Your task to perform on an android device: turn off improve location accuracy Image 0: 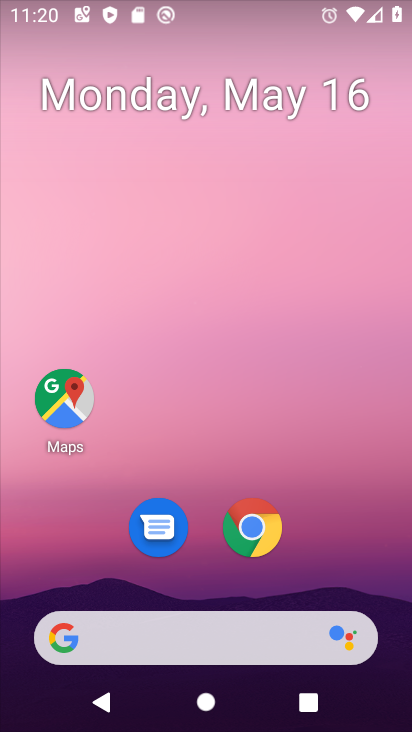
Step 0: drag from (364, 582) to (367, 6)
Your task to perform on an android device: turn off improve location accuracy Image 1: 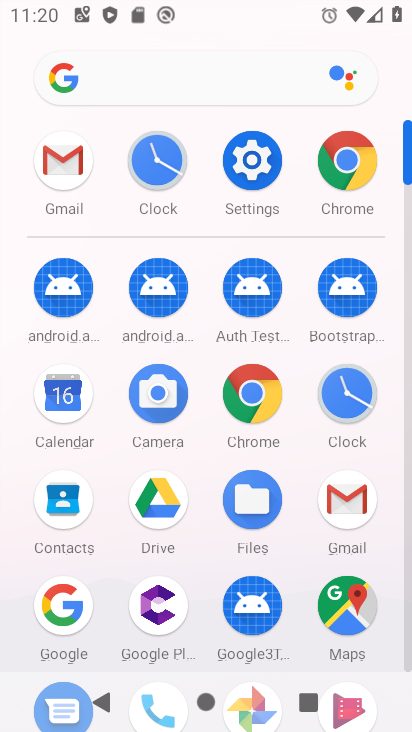
Step 1: click (253, 162)
Your task to perform on an android device: turn off improve location accuracy Image 2: 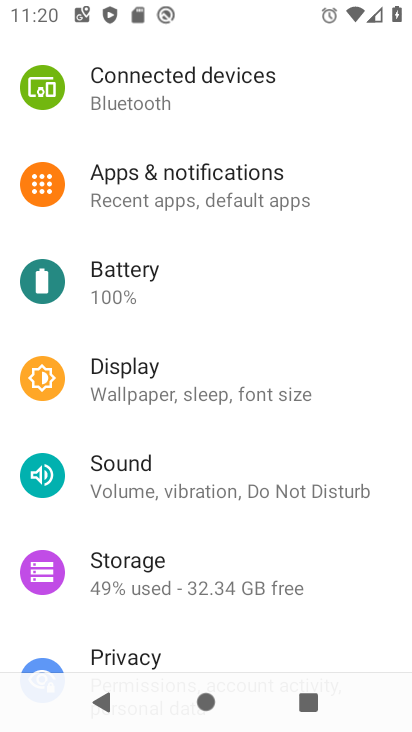
Step 2: drag from (275, 444) to (277, 128)
Your task to perform on an android device: turn off improve location accuracy Image 3: 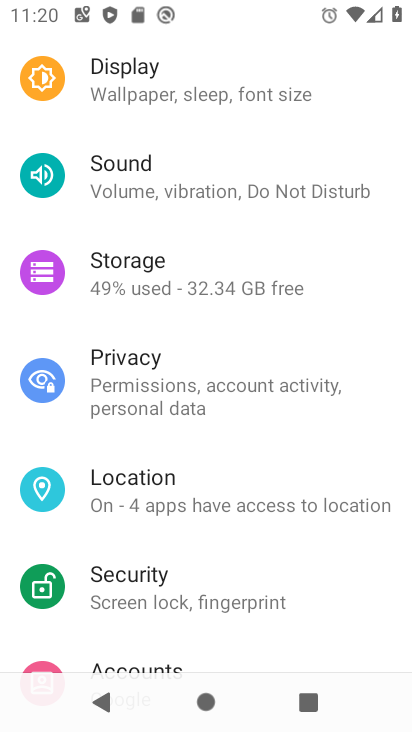
Step 3: click (142, 481)
Your task to perform on an android device: turn off improve location accuracy Image 4: 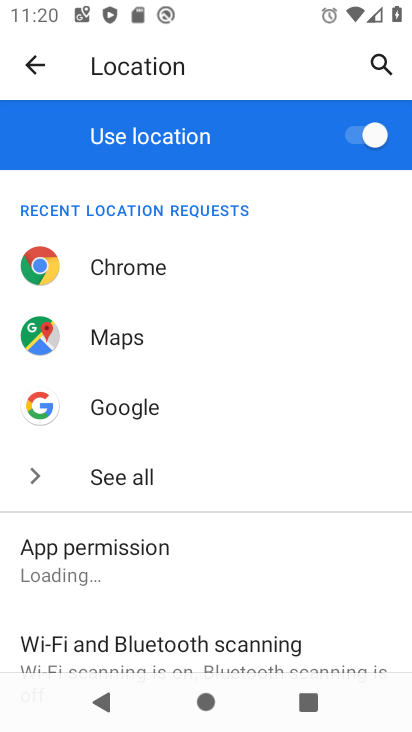
Step 4: drag from (180, 546) to (190, 72)
Your task to perform on an android device: turn off improve location accuracy Image 5: 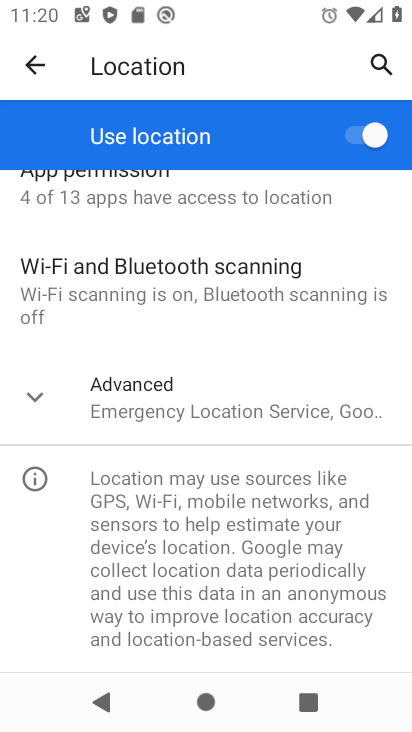
Step 5: click (31, 394)
Your task to perform on an android device: turn off improve location accuracy Image 6: 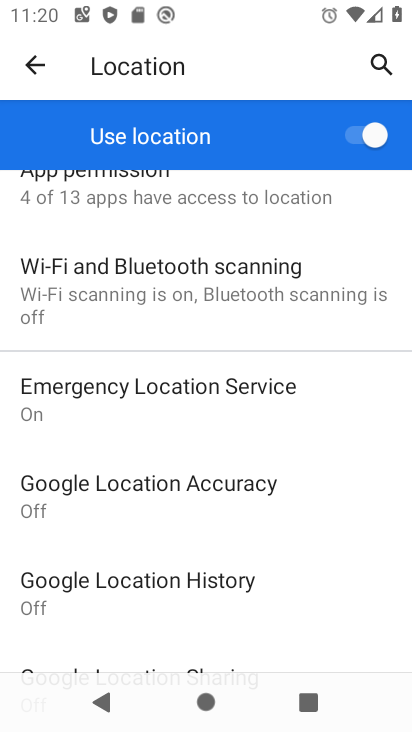
Step 6: click (72, 484)
Your task to perform on an android device: turn off improve location accuracy Image 7: 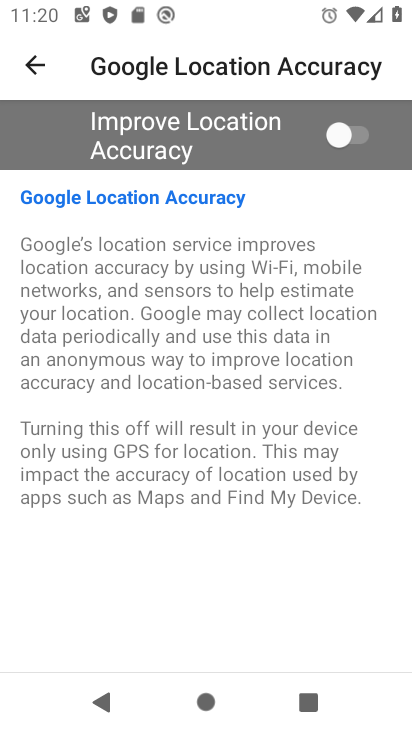
Step 7: task complete